Your task to perform on an android device: Open wifi settings Image 0: 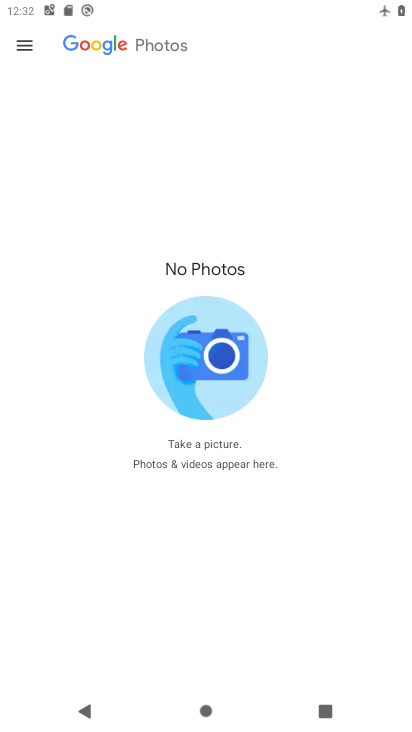
Step 0: press home button
Your task to perform on an android device: Open wifi settings Image 1: 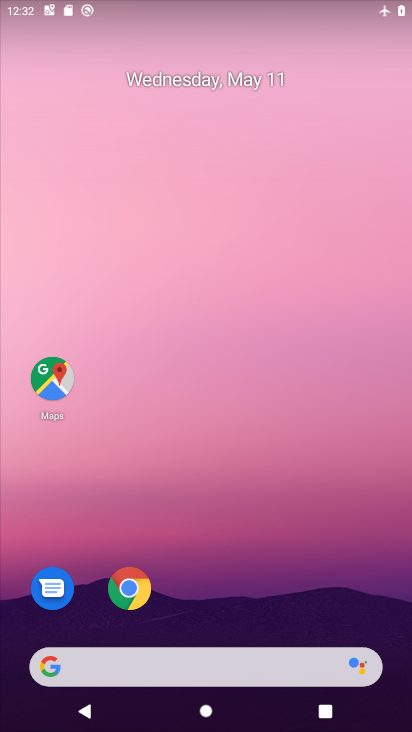
Step 1: drag from (223, 638) to (227, 293)
Your task to perform on an android device: Open wifi settings Image 2: 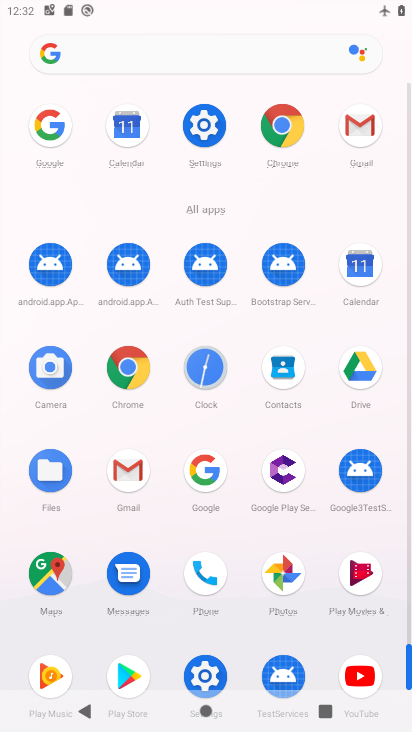
Step 2: click (213, 129)
Your task to perform on an android device: Open wifi settings Image 3: 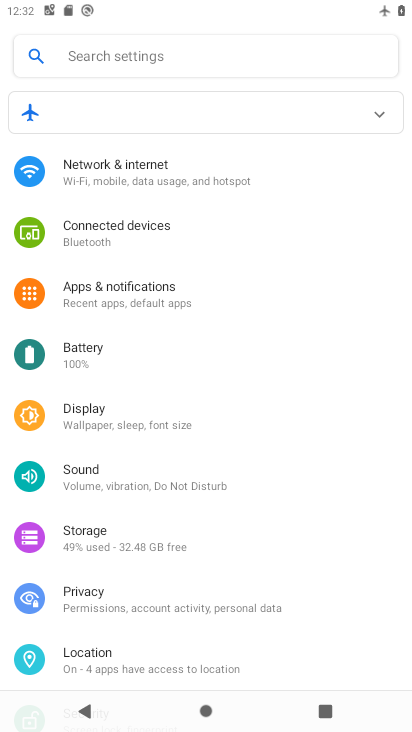
Step 3: click (122, 175)
Your task to perform on an android device: Open wifi settings Image 4: 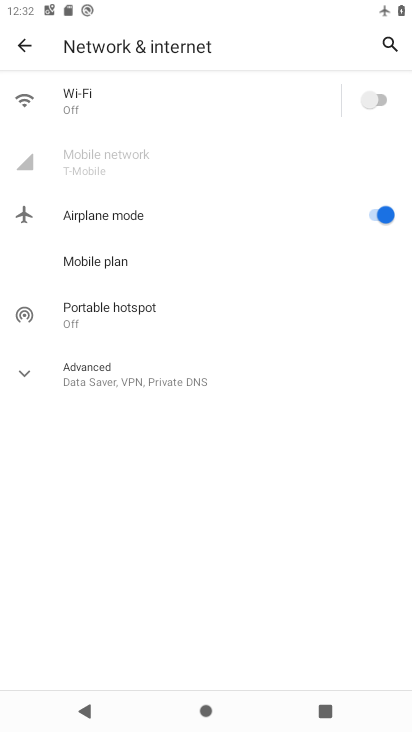
Step 4: click (374, 94)
Your task to perform on an android device: Open wifi settings Image 5: 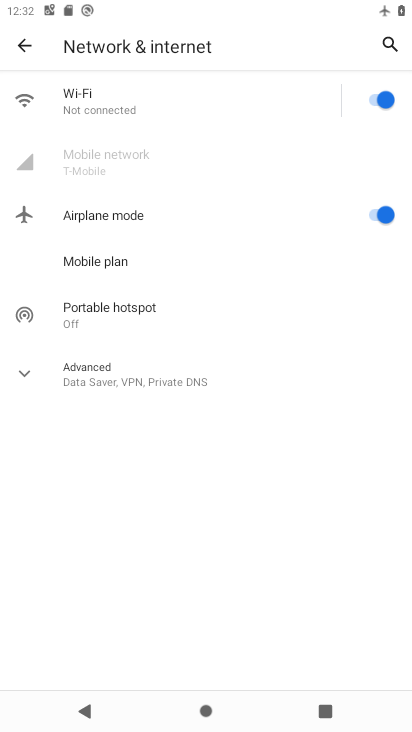
Step 5: click (100, 111)
Your task to perform on an android device: Open wifi settings Image 6: 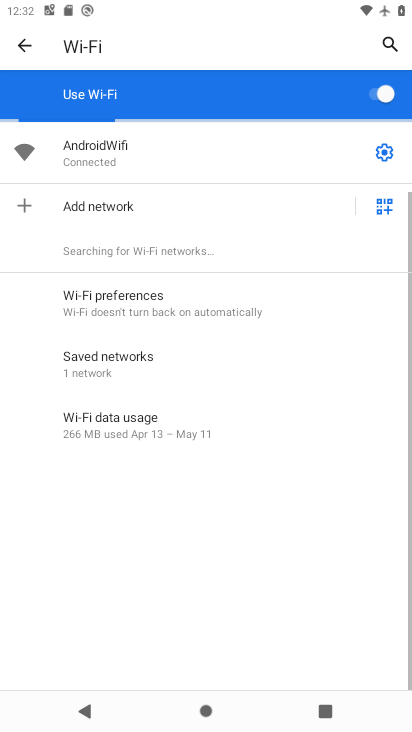
Step 6: click (384, 148)
Your task to perform on an android device: Open wifi settings Image 7: 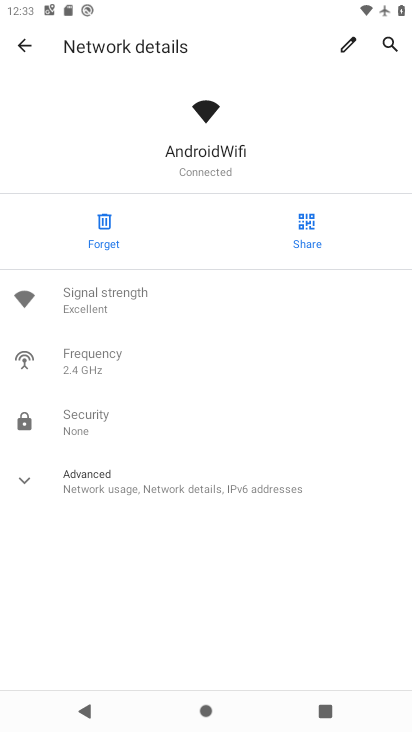
Step 7: click (107, 483)
Your task to perform on an android device: Open wifi settings Image 8: 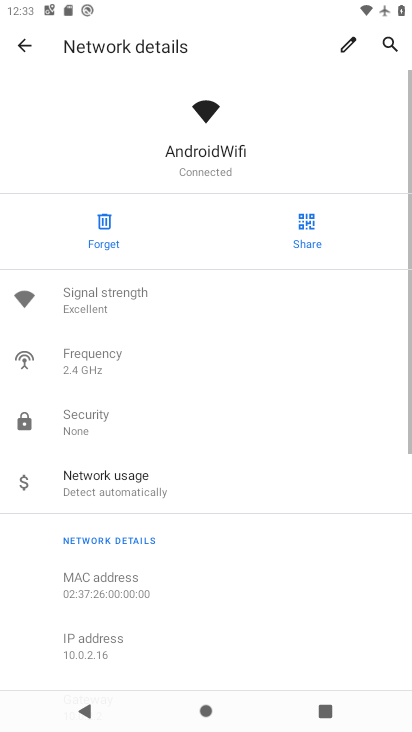
Step 8: task complete